Your task to perform on an android device: turn off location history Image 0: 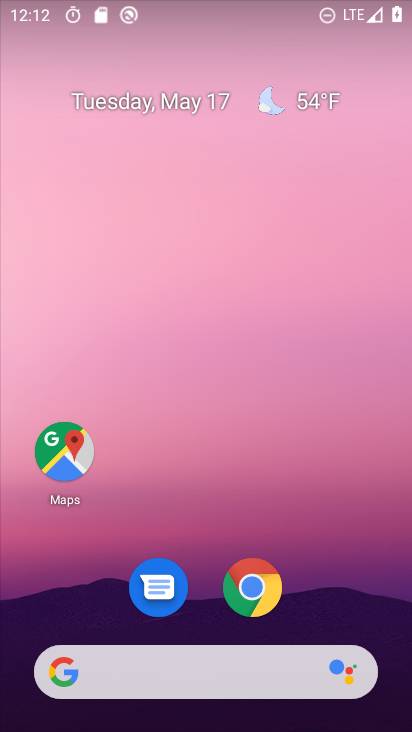
Step 0: drag from (200, 603) to (215, 173)
Your task to perform on an android device: turn off location history Image 1: 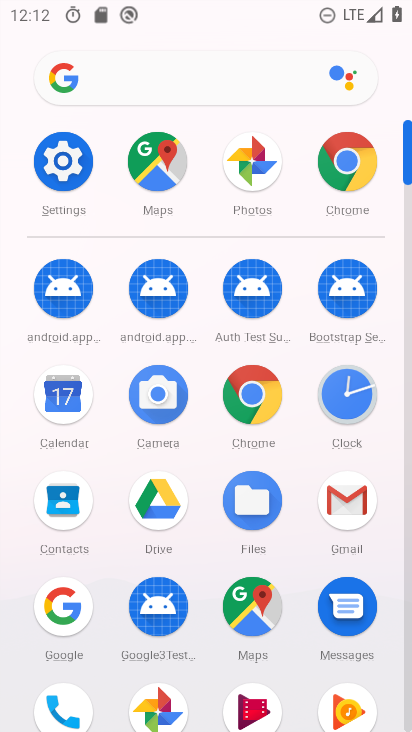
Step 1: click (69, 163)
Your task to perform on an android device: turn off location history Image 2: 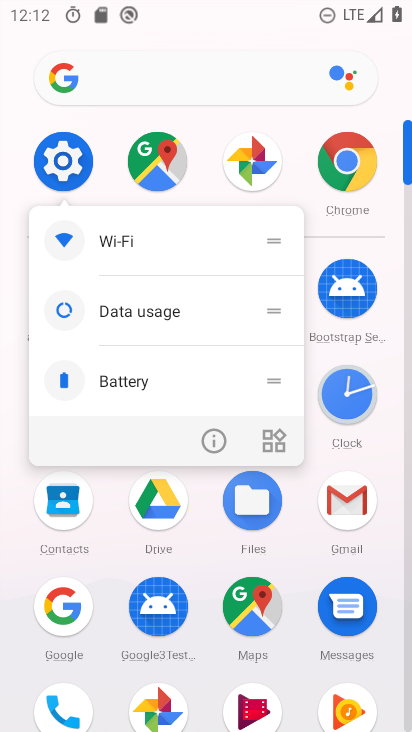
Step 2: click (224, 444)
Your task to perform on an android device: turn off location history Image 3: 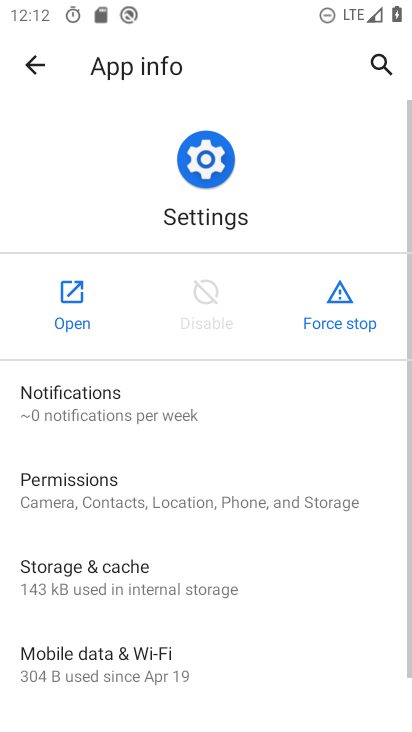
Step 3: click (182, 394)
Your task to perform on an android device: turn off location history Image 4: 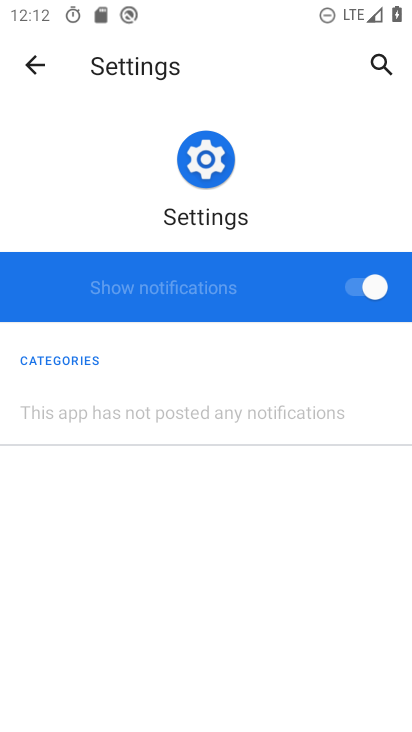
Step 4: click (38, 80)
Your task to perform on an android device: turn off location history Image 5: 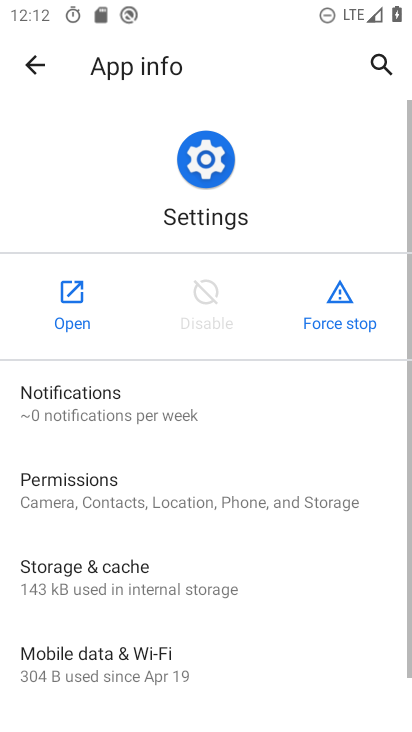
Step 5: click (56, 302)
Your task to perform on an android device: turn off location history Image 6: 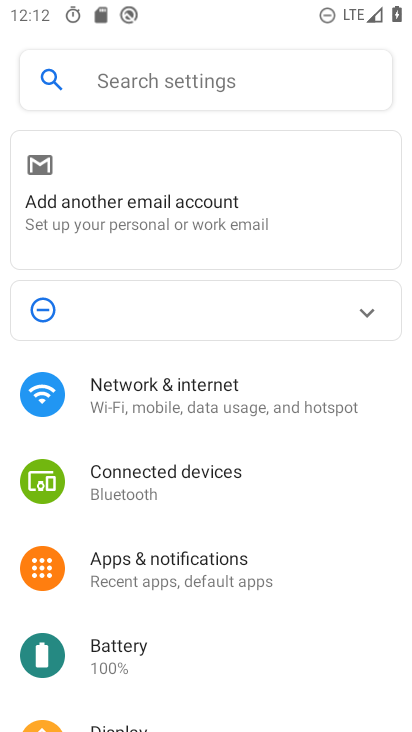
Step 6: click (198, 400)
Your task to perform on an android device: turn off location history Image 7: 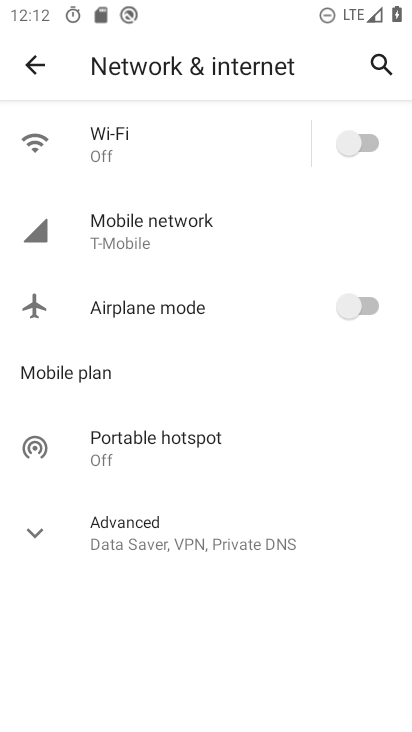
Step 7: drag from (153, 527) to (191, 136)
Your task to perform on an android device: turn off location history Image 8: 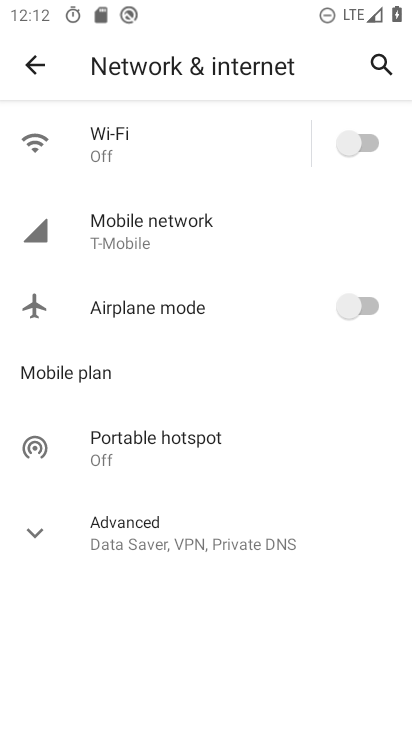
Step 8: click (37, 60)
Your task to perform on an android device: turn off location history Image 9: 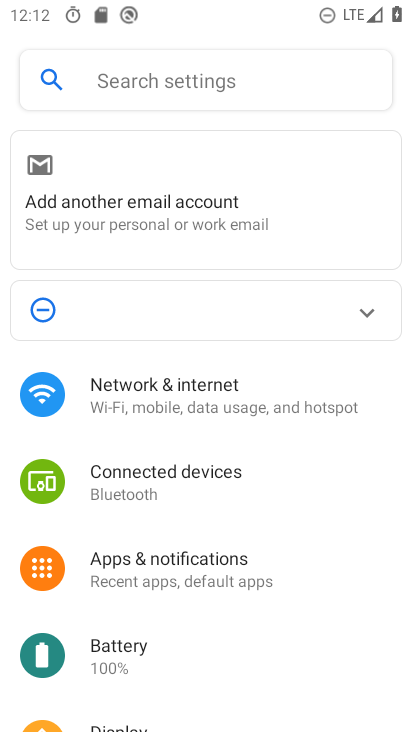
Step 9: drag from (256, 615) to (316, 157)
Your task to perform on an android device: turn off location history Image 10: 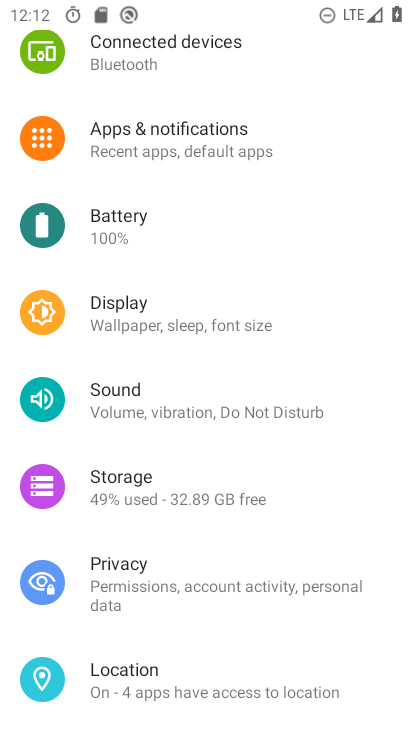
Step 10: click (143, 679)
Your task to perform on an android device: turn off location history Image 11: 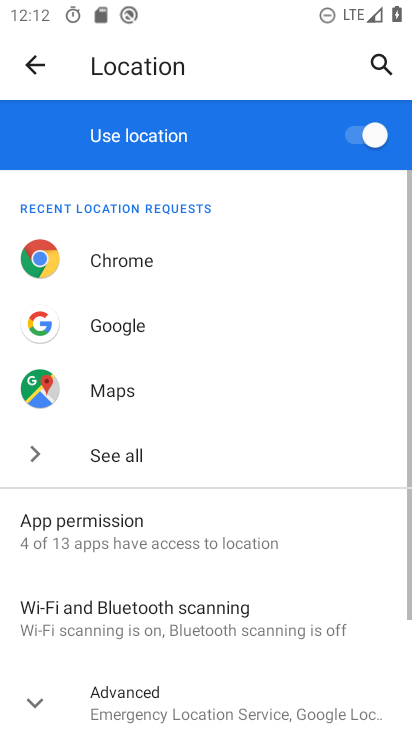
Step 11: drag from (242, 635) to (299, 239)
Your task to perform on an android device: turn off location history Image 12: 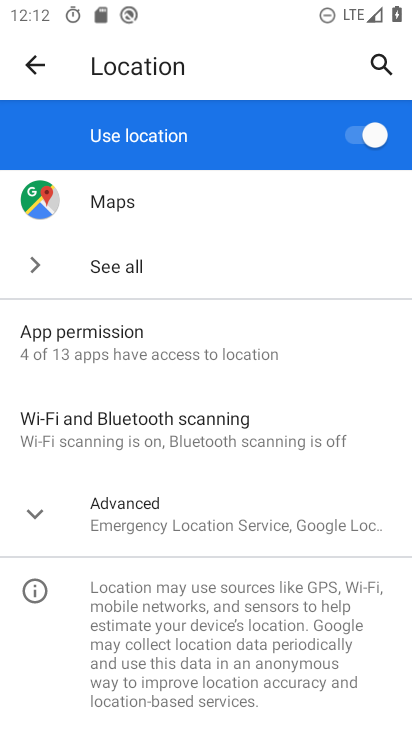
Step 12: click (182, 513)
Your task to perform on an android device: turn off location history Image 13: 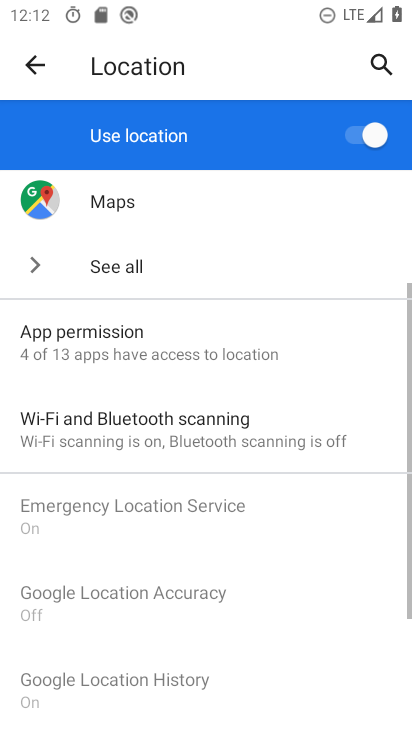
Step 13: drag from (197, 518) to (303, 162)
Your task to perform on an android device: turn off location history Image 14: 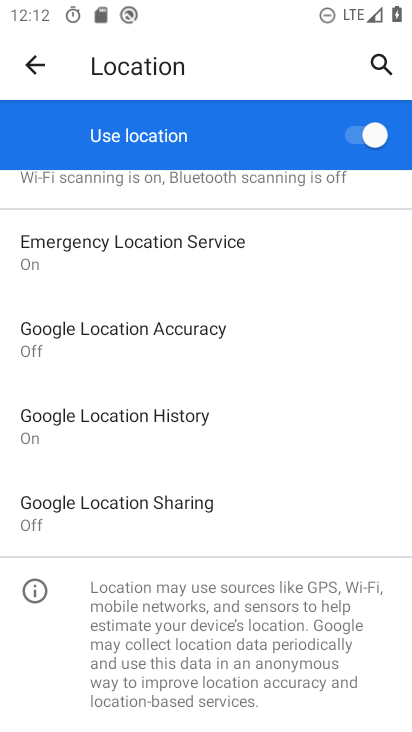
Step 14: click (199, 424)
Your task to perform on an android device: turn off location history Image 15: 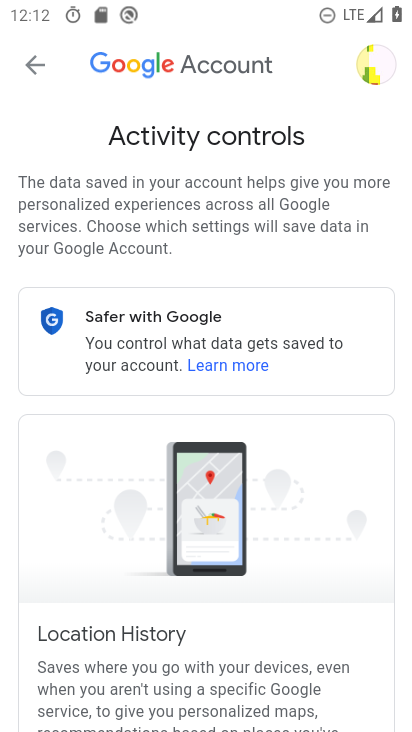
Step 15: drag from (223, 390) to (288, 39)
Your task to perform on an android device: turn off location history Image 16: 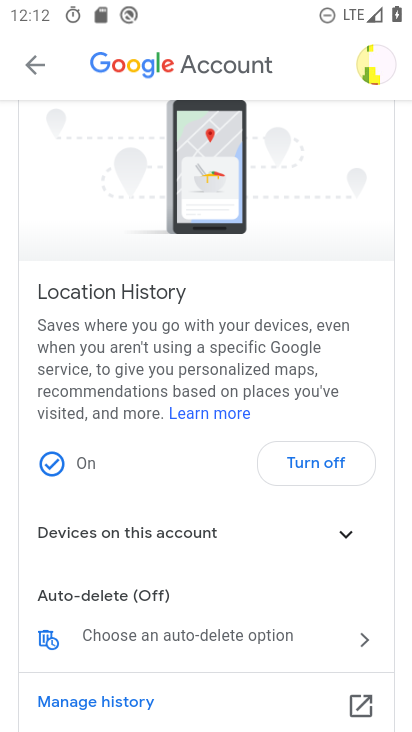
Step 16: click (316, 476)
Your task to perform on an android device: turn off location history Image 17: 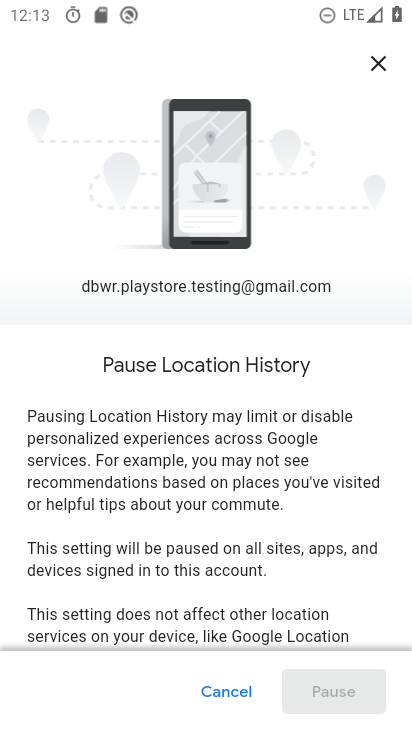
Step 17: drag from (315, 543) to (393, 62)
Your task to perform on an android device: turn off location history Image 18: 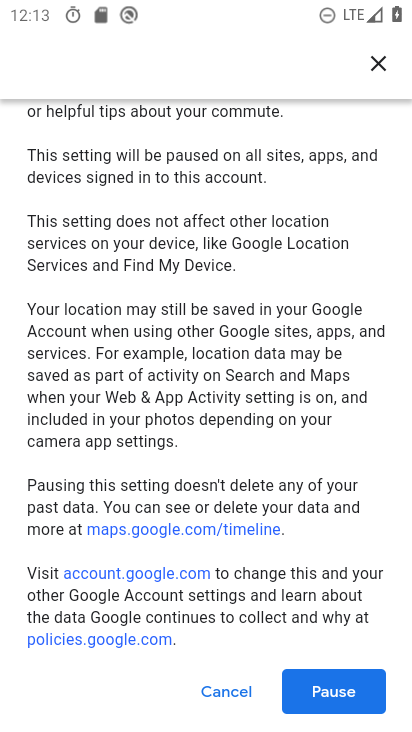
Step 18: click (317, 677)
Your task to perform on an android device: turn off location history Image 19: 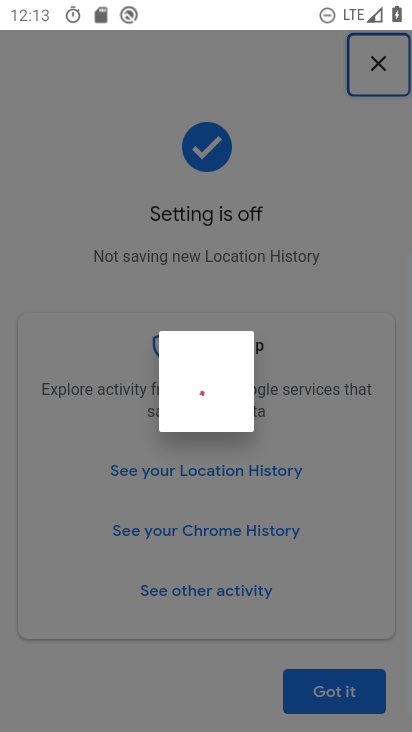
Step 19: task complete